Your task to perform on an android device: open chrome and create a bookmark for the current page Image 0: 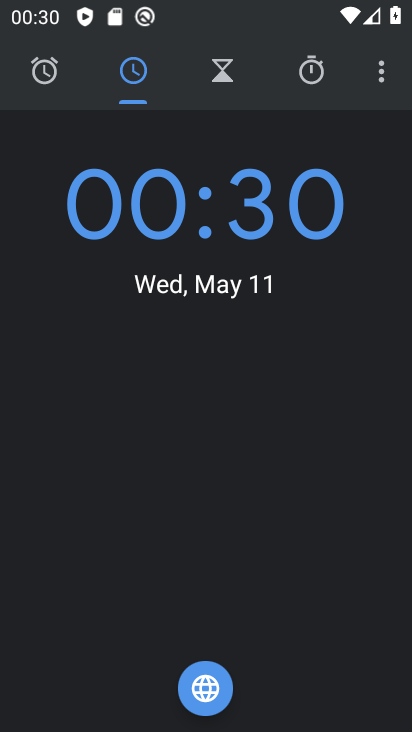
Step 0: press home button
Your task to perform on an android device: open chrome and create a bookmark for the current page Image 1: 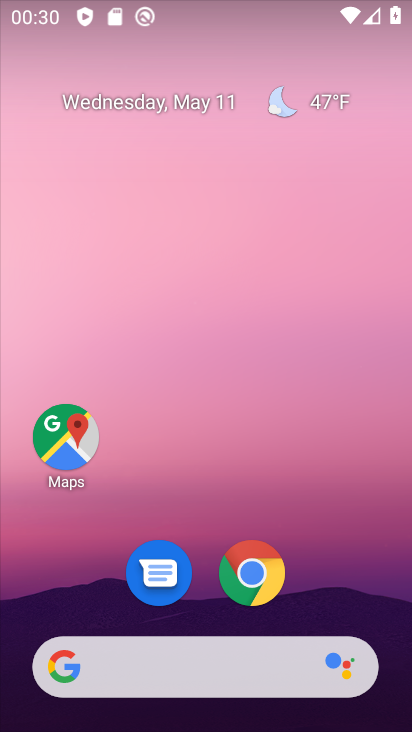
Step 1: click (250, 590)
Your task to perform on an android device: open chrome and create a bookmark for the current page Image 2: 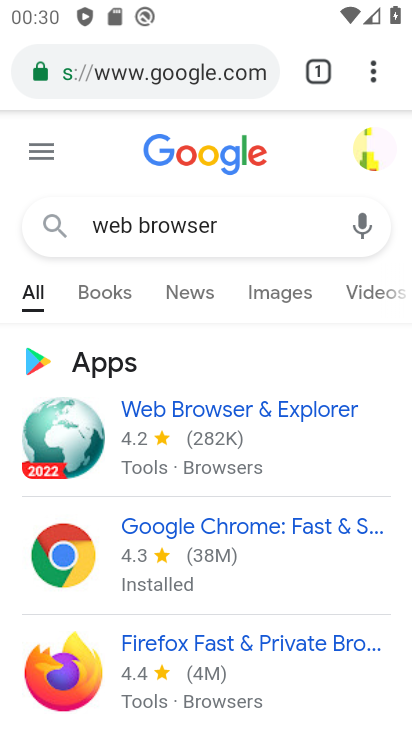
Step 2: drag from (191, 78) to (346, 85)
Your task to perform on an android device: open chrome and create a bookmark for the current page Image 3: 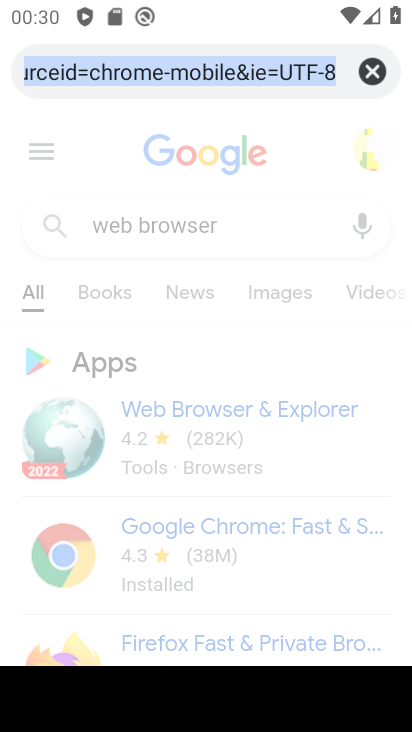
Step 3: click (363, 72)
Your task to perform on an android device: open chrome and create a bookmark for the current page Image 4: 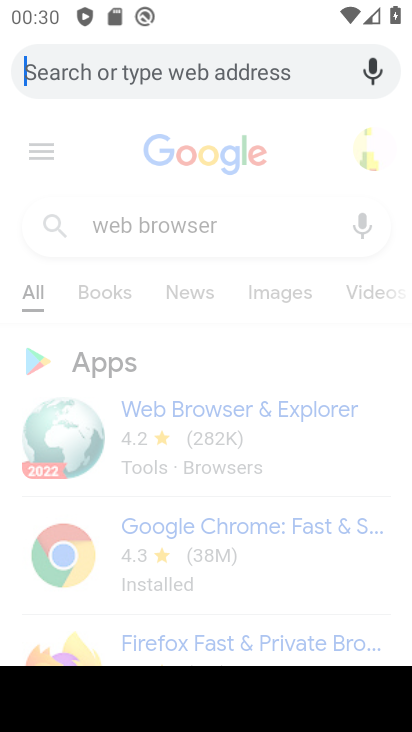
Step 4: click (136, 251)
Your task to perform on an android device: open chrome and create a bookmark for the current page Image 5: 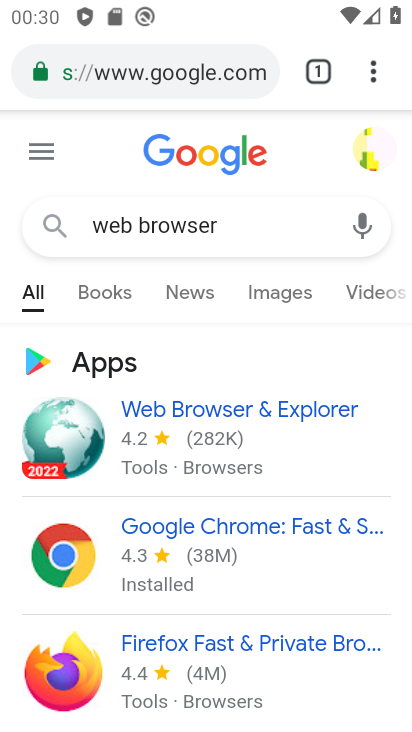
Step 5: task complete